Your task to perform on an android device: Search for Italian restaurants on Maps Image 0: 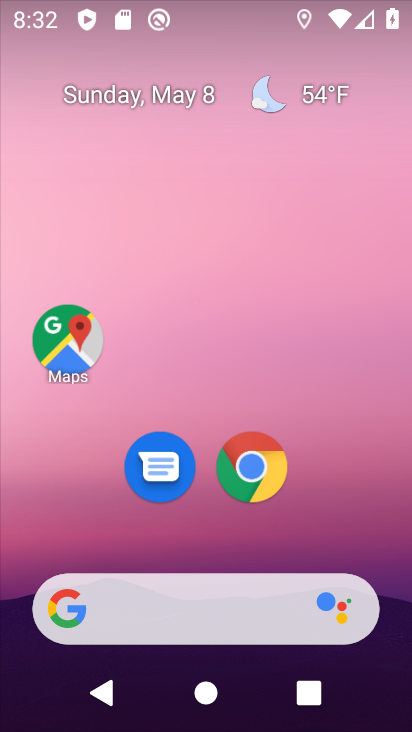
Step 0: click (71, 339)
Your task to perform on an android device: Search for Italian restaurants on Maps Image 1: 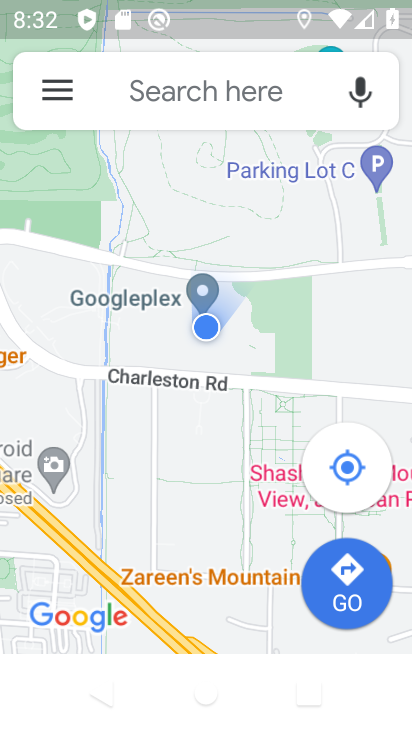
Step 1: click (139, 84)
Your task to perform on an android device: Search for Italian restaurants on Maps Image 2: 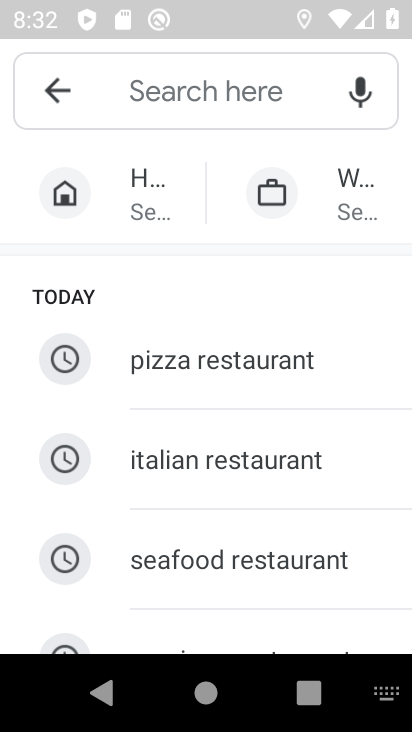
Step 2: type "italian restaurants"
Your task to perform on an android device: Search for Italian restaurants on Maps Image 3: 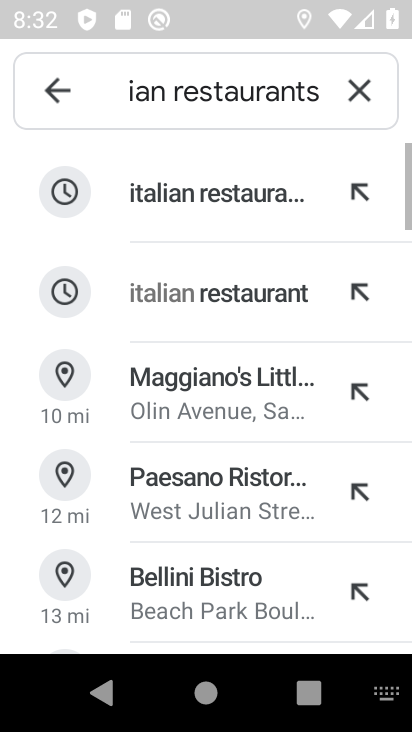
Step 3: click (185, 202)
Your task to perform on an android device: Search for Italian restaurants on Maps Image 4: 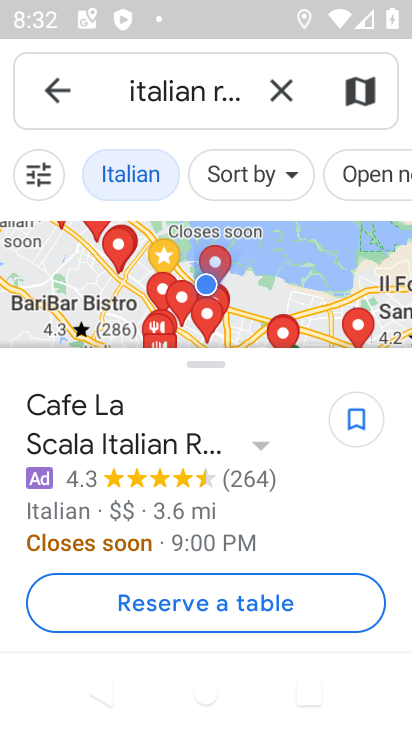
Step 4: task complete